Your task to perform on an android device: Open wifi settings Image 0: 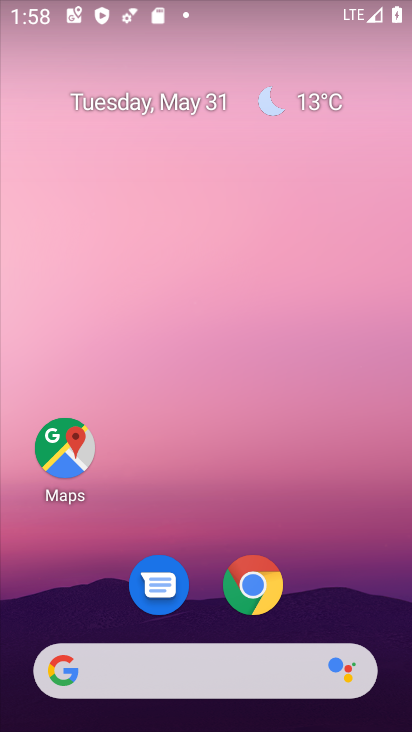
Step 0: drag from (245, 472) to (247, 2)
Your task to perform on an android device: Open wifi settings Image 1: 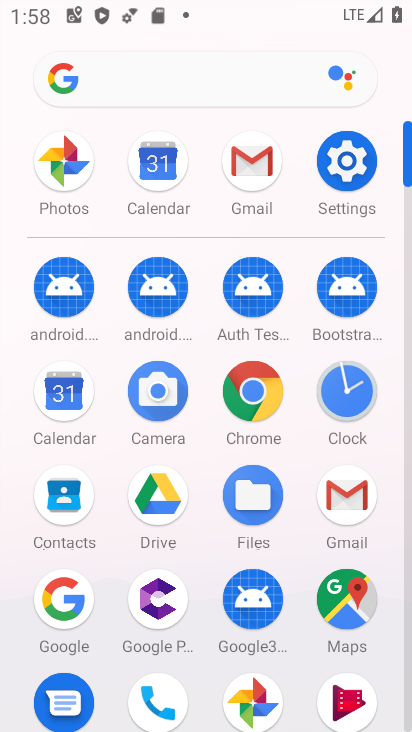
Step 1: click (341, 161)
Your task to perform on an android device: Open wifi settings Image 2: 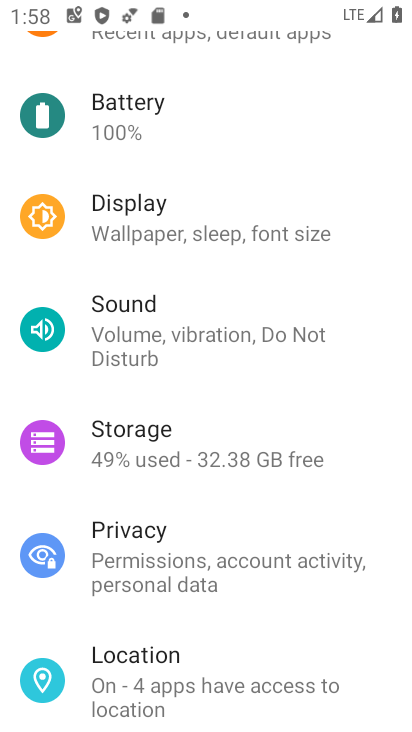
Step 2: drag from (243, 164) to (261, 612)
Your task to perform on an android device: Open wifi settings Image 3: 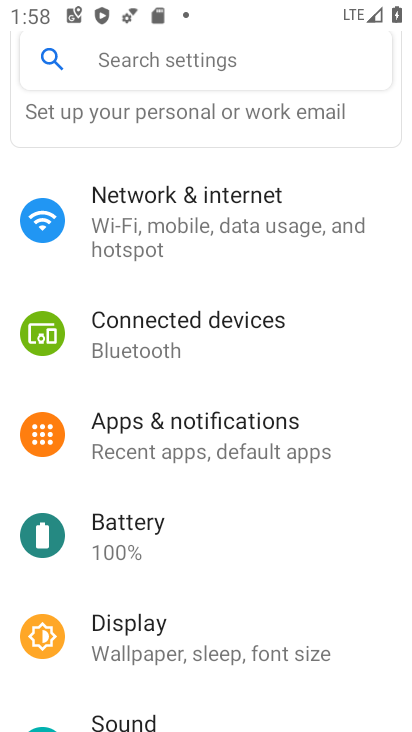
Step 3: click (262, 241)
Your task to perform on an android device: Open wifi settings Image 4: 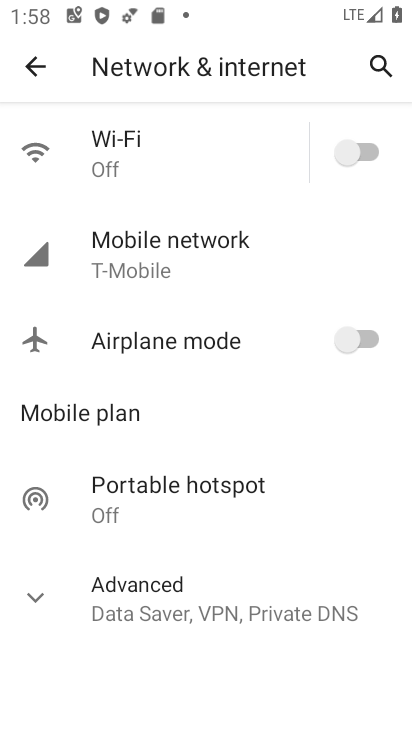
Step 4: click (218, 159)
Your task to perform on an android device: Open wifi settings Image 5: 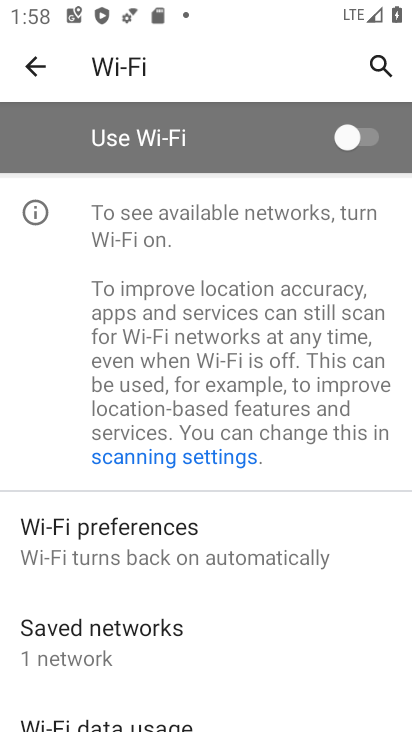
Step 5: task complete